Your task to perform on an android device: How much does a 2 bedroom apartment rent for in Washington DC? Image 0: 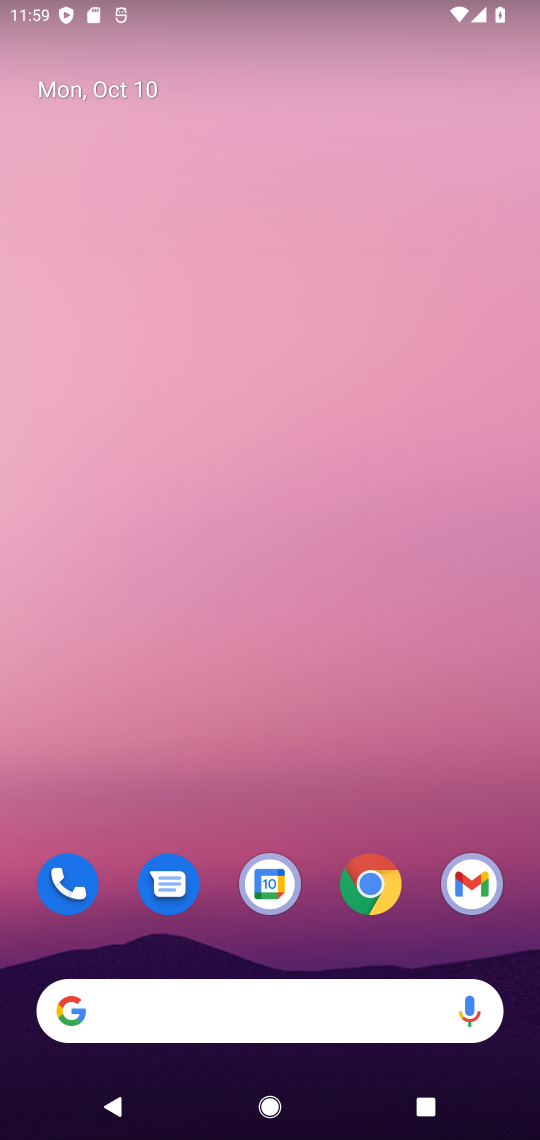
Step 0: click (376, 895)
Your task to perform on an android device: How much does a 2 bedroom apartment rent for in Washington DC? Image 1: 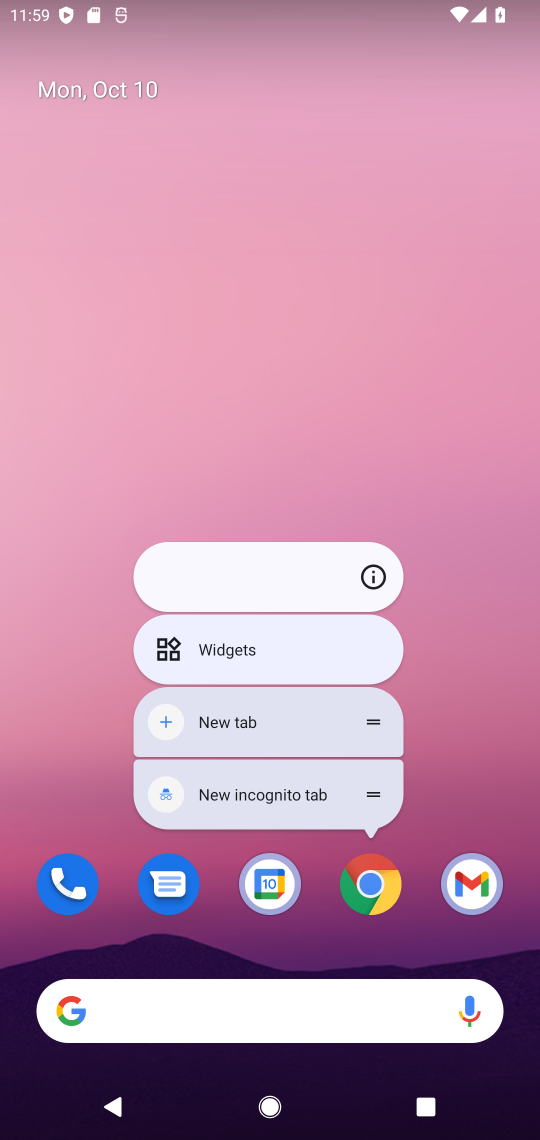
Step 1: click (383, 886)
Your task to perform on an android device: How much does a 2 bedroom apartment rent for in Washington DC? Image 2: 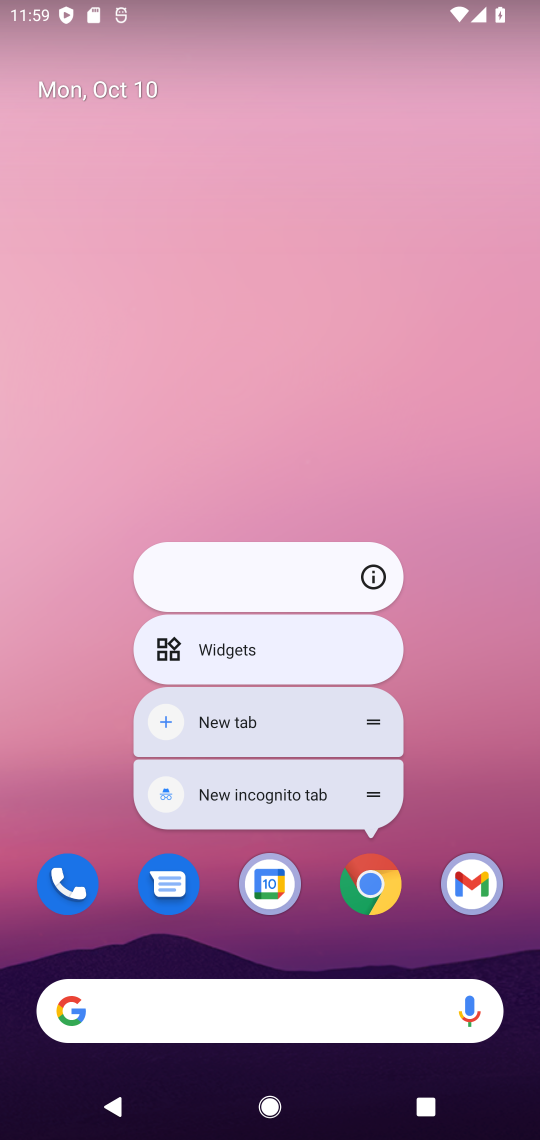
Step 2: click (383, 886)
Your task to perform on an android device: How much does a 2 bedroom apartment rent for in Washington DC? Image 3: 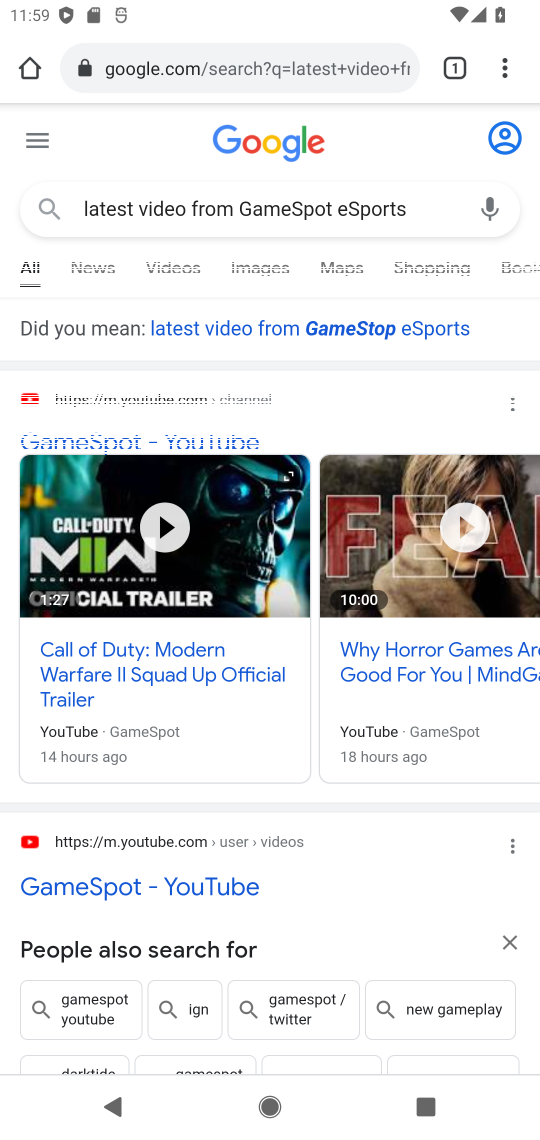
Step 3: click (180, 83)
Your task to perform on an android device: How much does a 2 bedroom apartment rent for in Washington DC? Image 4: 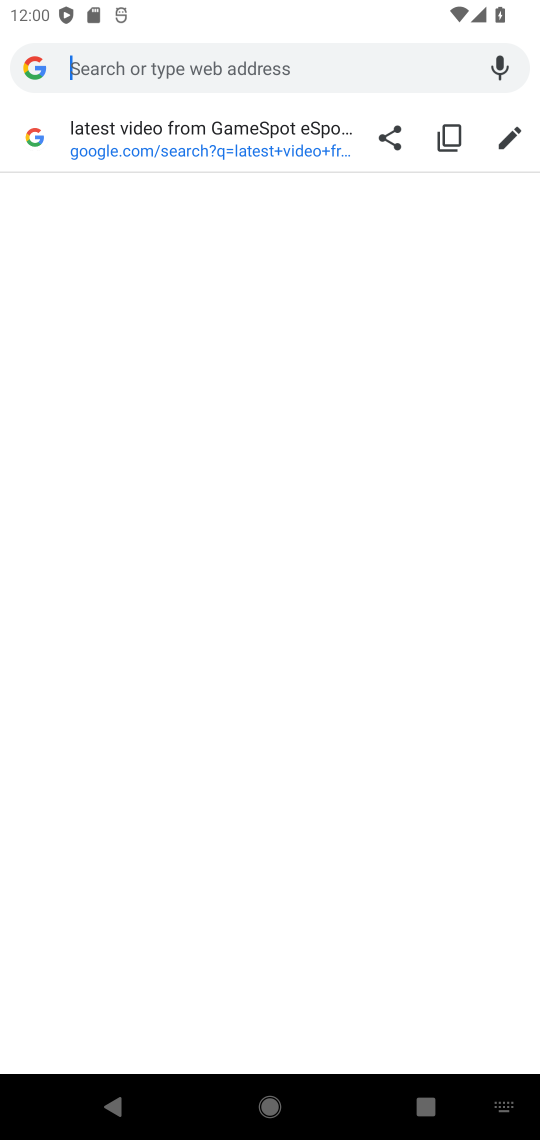
Step 4: type "2 bedroom apartment rent in Washington DC"
Your task to perform on an android device: How much does a 2 bedroom apartment rent for in Washington DC? Image 5: 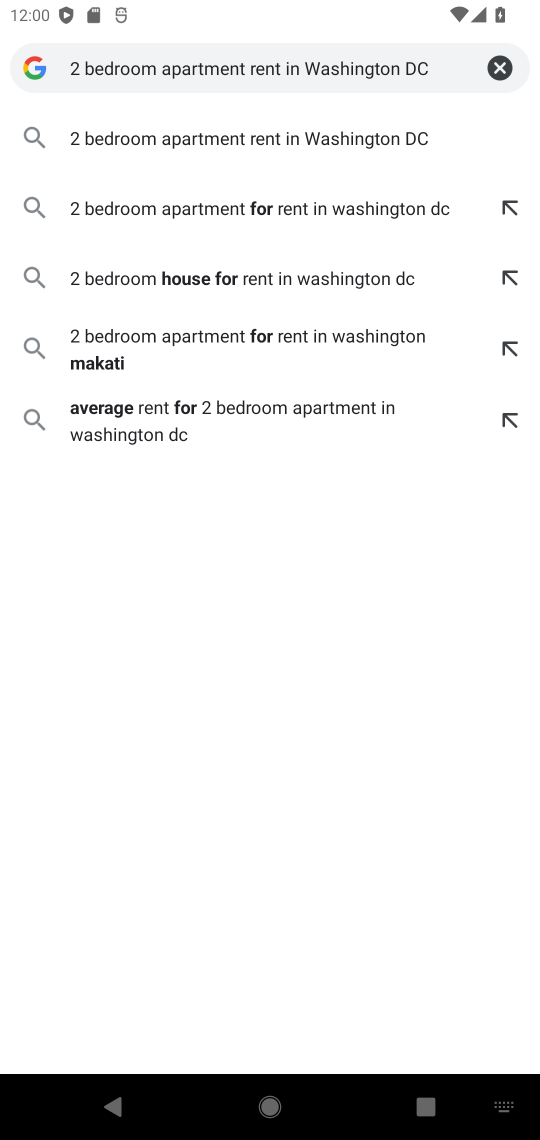
Step 5: press enter
Your task to perform on an android device: How much does a 2 bedroom apartment rent for in Washington DC? Image 6: 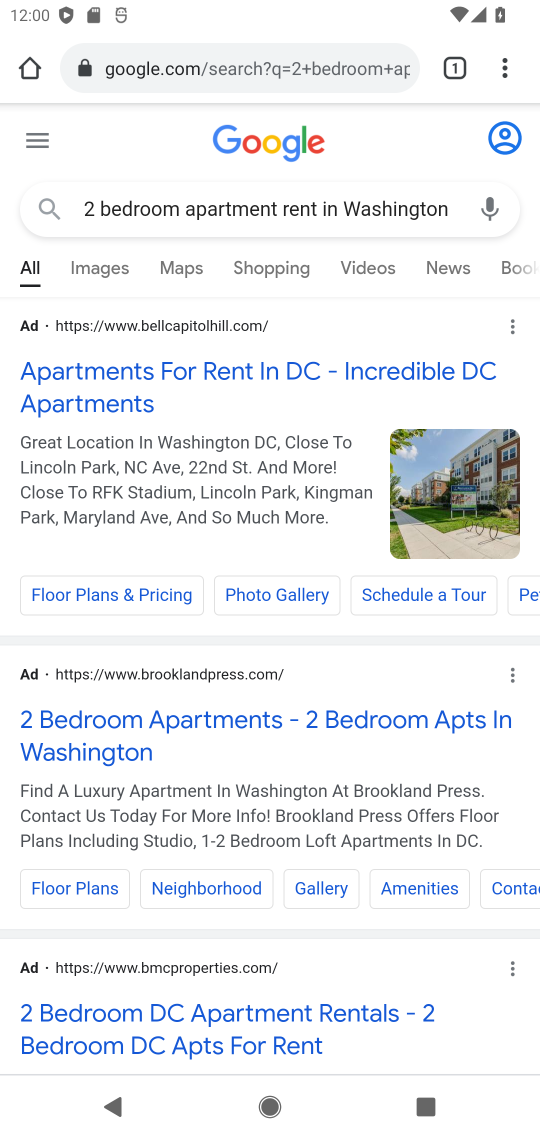
Step 6: drag from (201, 798) to (140, 368)
Your task to perform on an android device: How much does a 2 bedroom apartment rent for in Washington DC? Image 7: 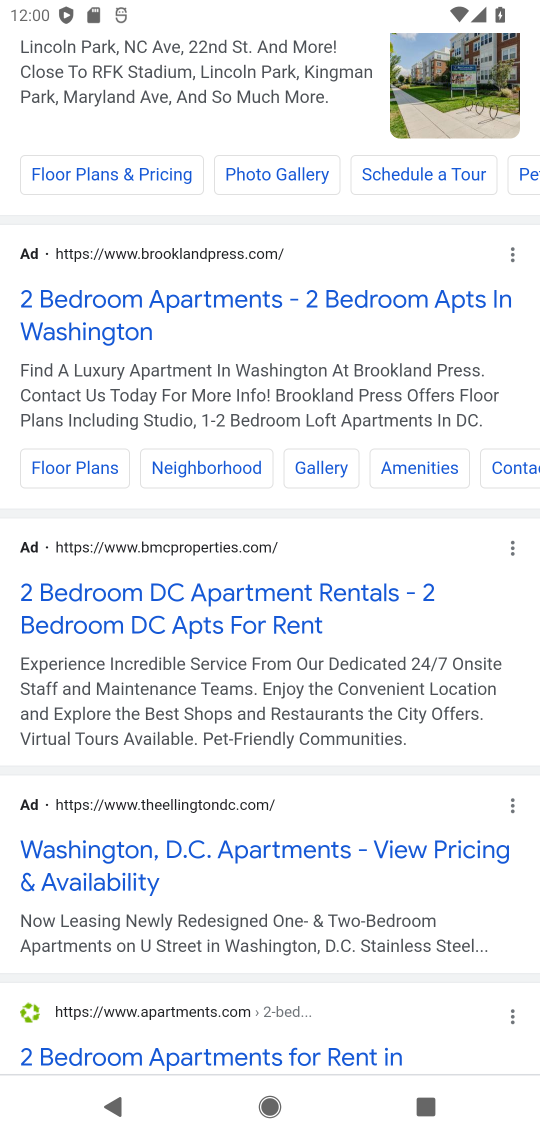
Step 7: click (238, 1050)
Your task to perform on an android device: How much does a 2 bedroom apartment rent for in Washington DC? Image 8: 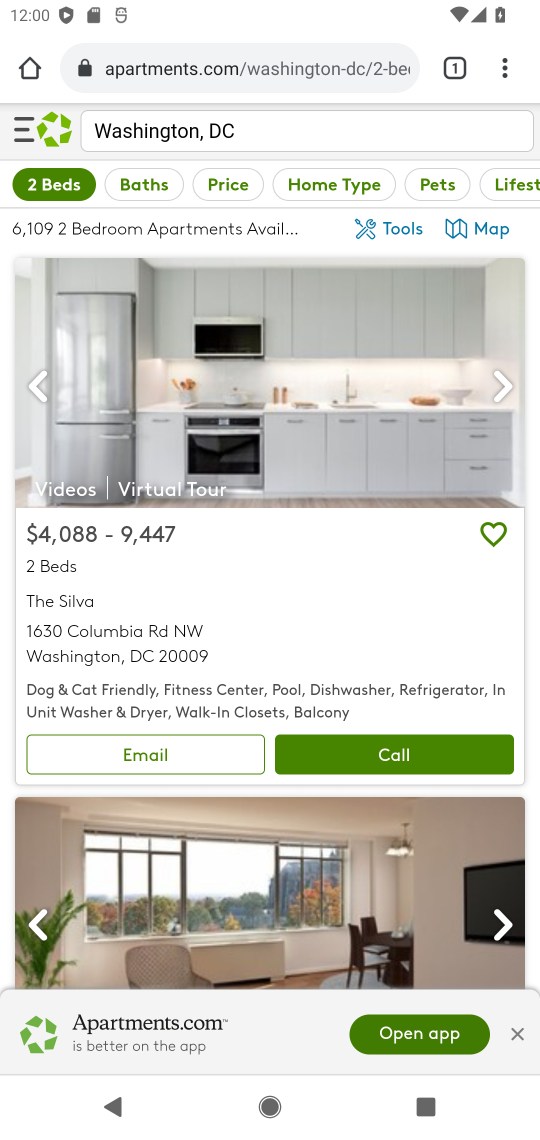
Step 8: drag from (213, 873) to (223, 412)
Your task to perform on an android device: How much does a 2 bedroom apartment rent for in Washington DC? Image 9: 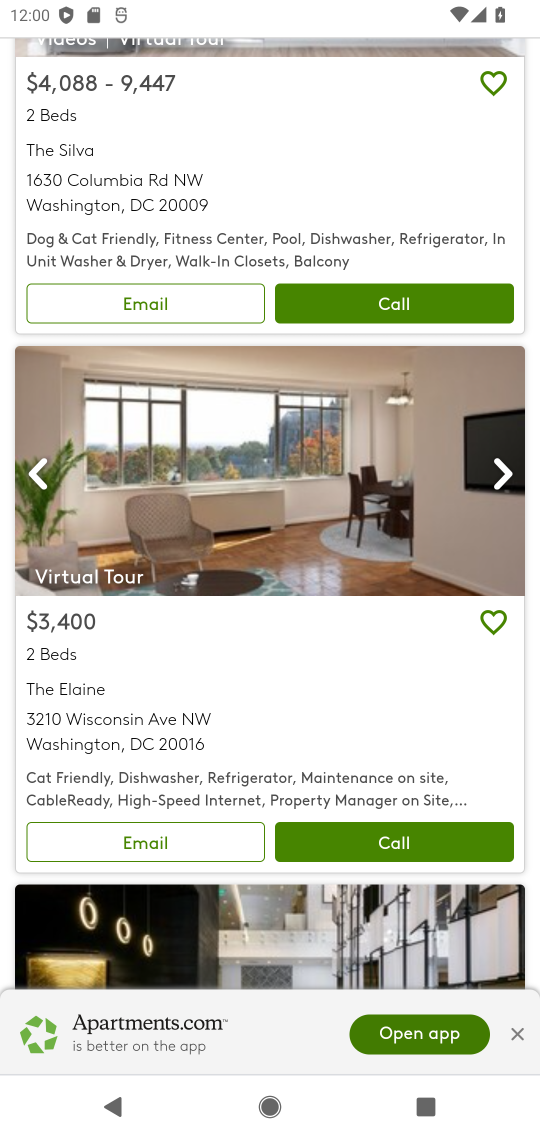
Step 9: drag from (288, 927) to (261, 471)
Your task to perform on an android device: How much does a 2 bedroom apartment rent for in Washington DC? Image 10: 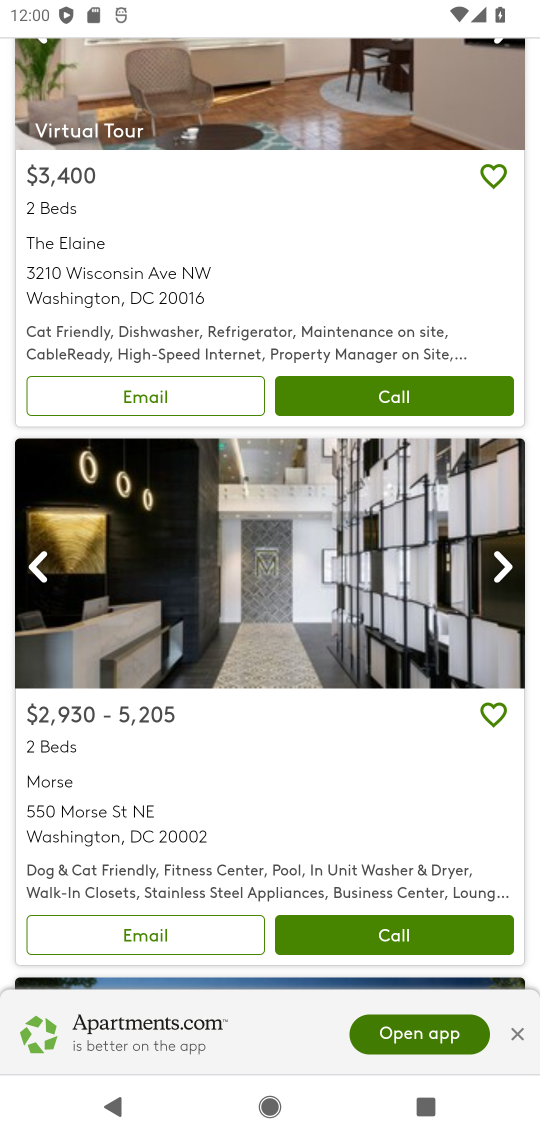
Step 10: click (271, 712)
Your task to perform on an android device: How much does a 2 bedroom apartment rent for in Washington DC? Image 11: 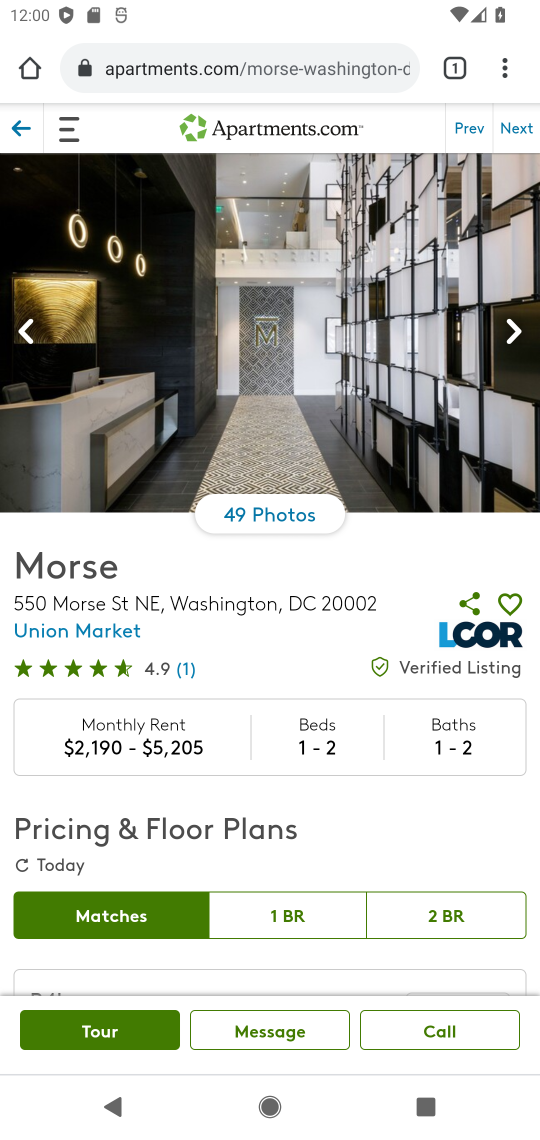
Step 11: click (506, 327)
Your task to perform on an android device: How much does a 2 bedroom apartment rent for in Washington DC? Image 12: 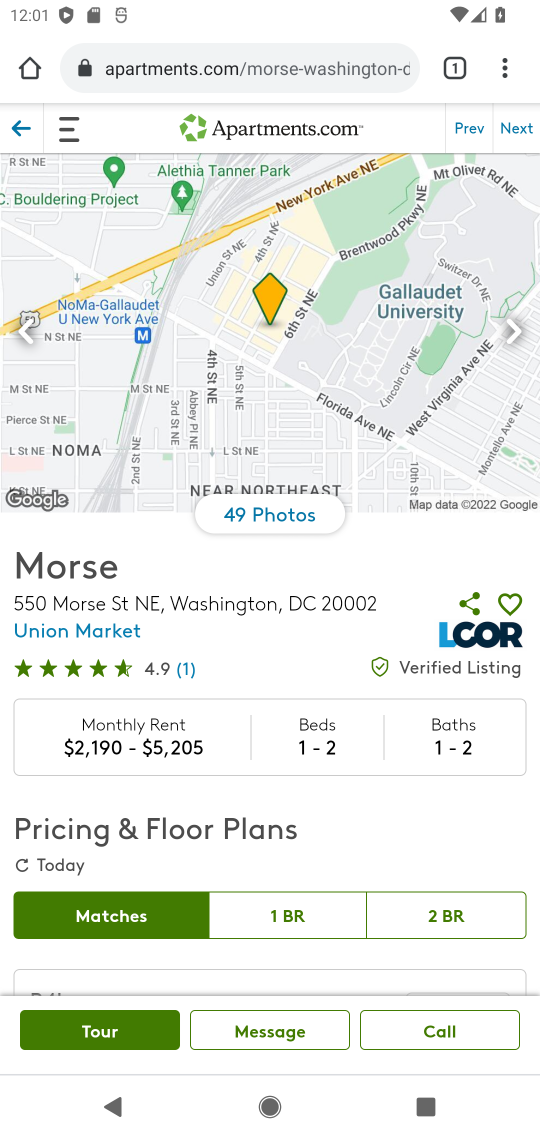
Step 12: click (504, 329)
Your task to perform on an android device: How much does a 2 bedroom apartment rent for in Washington DC? Image 13: 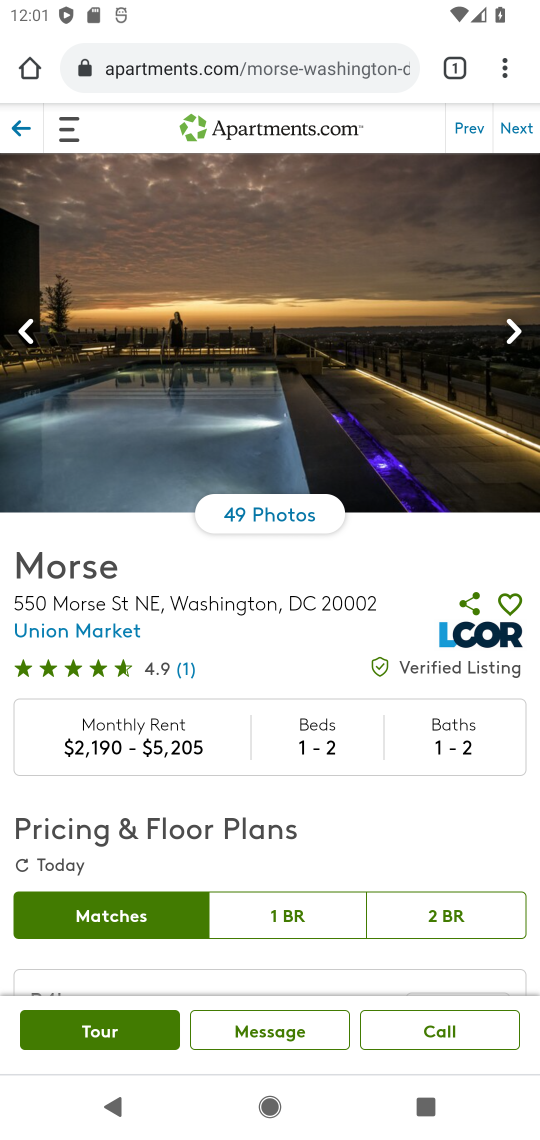
Step 13: click (514, 332)
Your task to perform on an android device: How much does a 2 bedroom apartment rent for in Washington DC? Image 14: 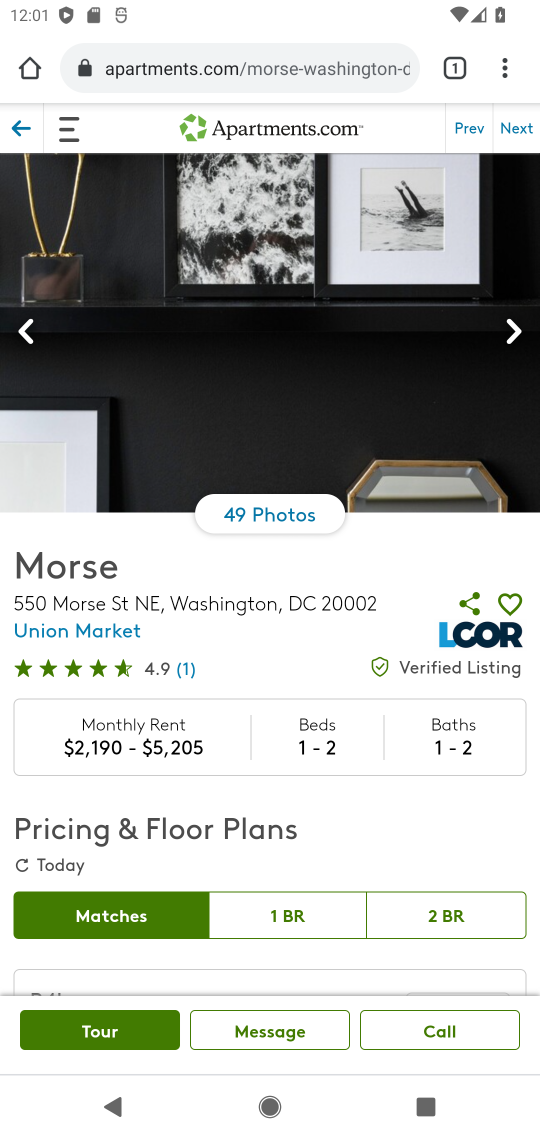
Step 14: click (507, 346)
Your task to perform on an android device: How much does a 2 bedroom apartment rent for in Washington DC? Image 15: 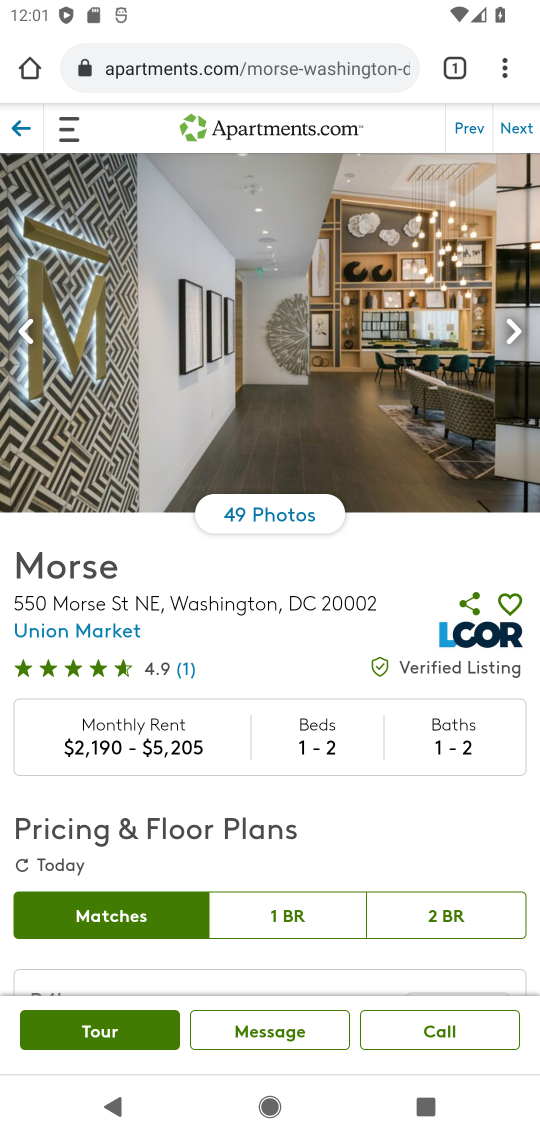
Step 15: click (513, 304)
Your task to perform on an android device: How much does a 2 bedroom apartment rent for in Washington DC? Image 16: 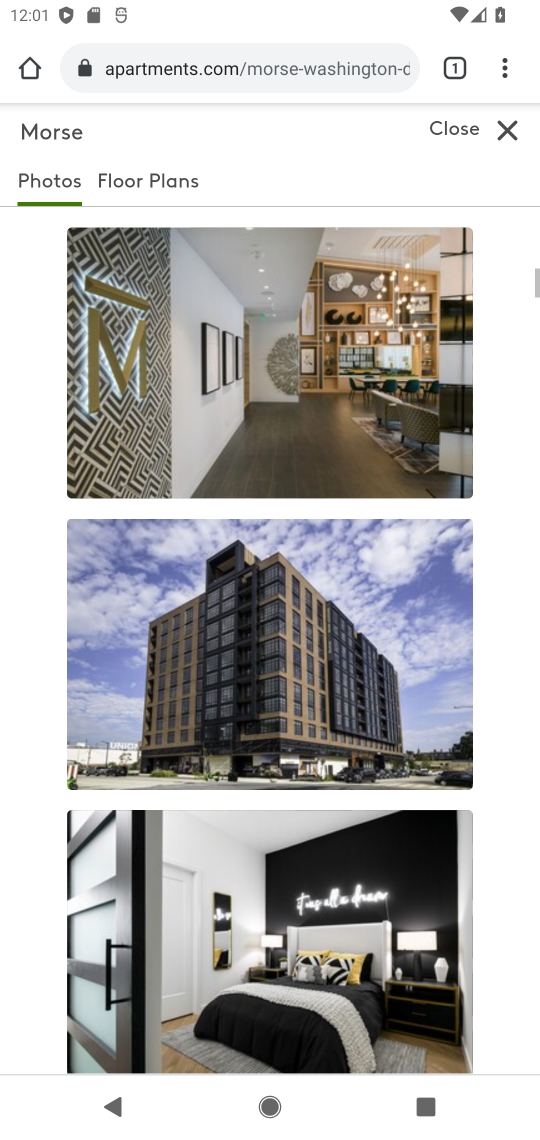
Step 16: task complete